Your task to perform on an android device: Toggle the flashlight Image 0: 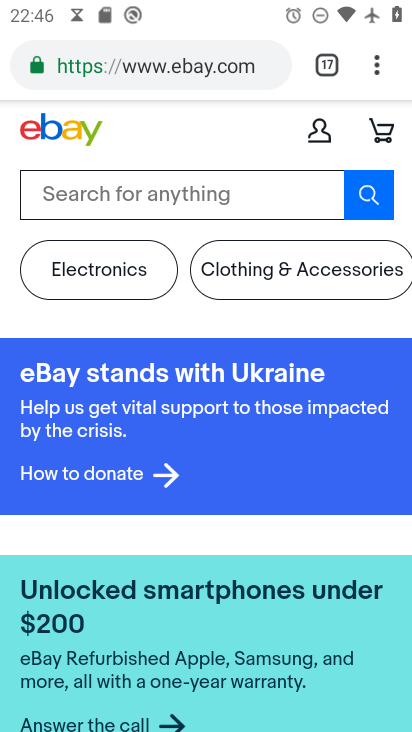
Step 0: press home button
Your task to perform on an android device: Toggle the flashlight Image 1: 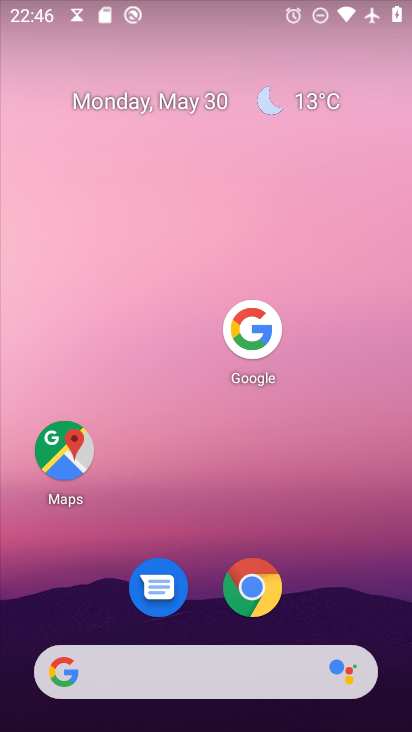
Step 1: task complete